Your task to perform on an android device: Open Amazon Image 0: 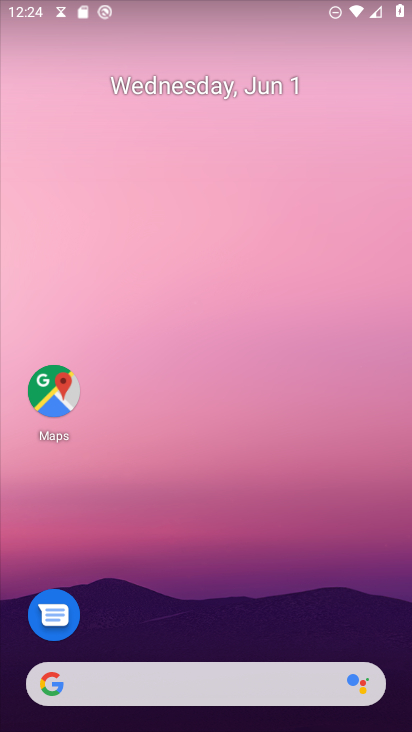
Step 0: drag from (277, 620) to (313, 138)
Your task to perform on an android device: Open Amazon Image 1: 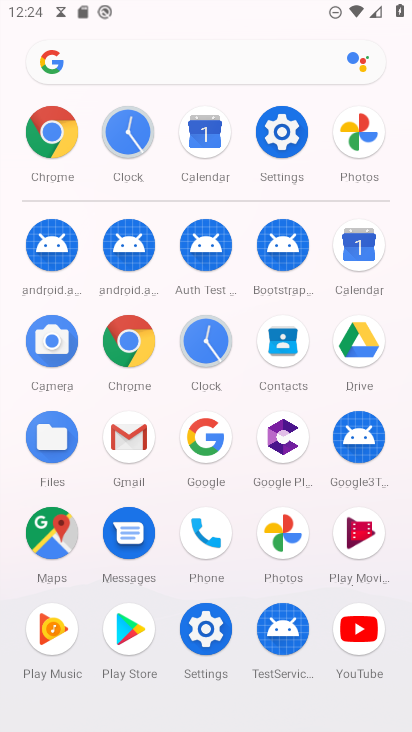
Step 1: click (135, 337)
Your task to perform on an android device: Open Amazon Image 2: 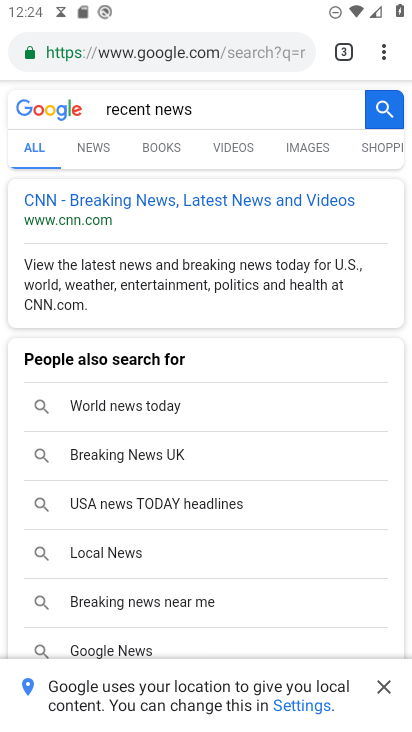
Step 2: click (304, 115)
Your task to perform on an android device: Open Amazon Image 3: 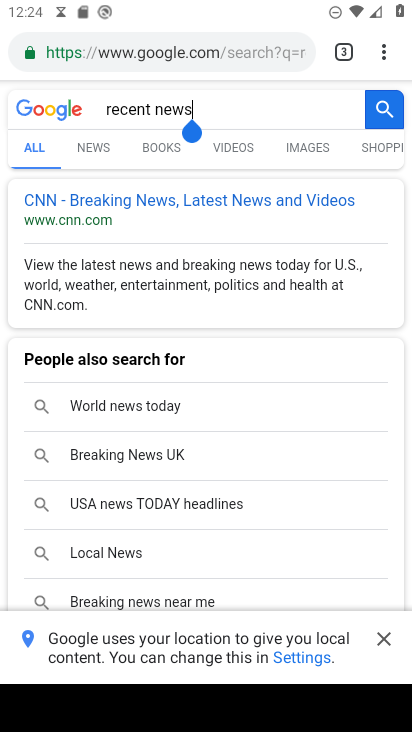
Step 3: click (320, 116)
Your task to perform on an android device: Open Amazon Image 4: 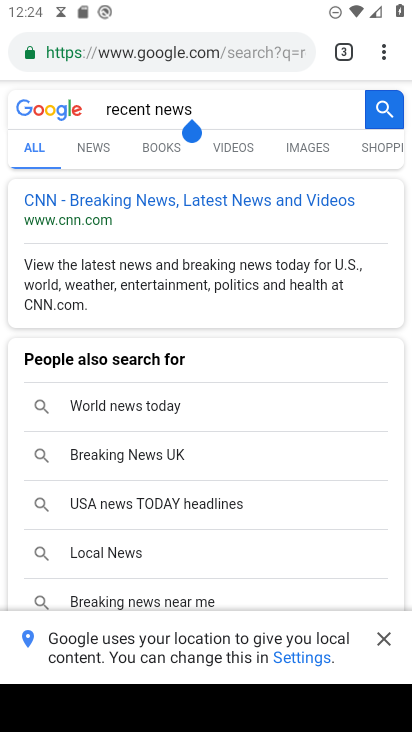
Step 4: click (320, 116)
Your task to perform on an android device: Open Amazon Image 5: 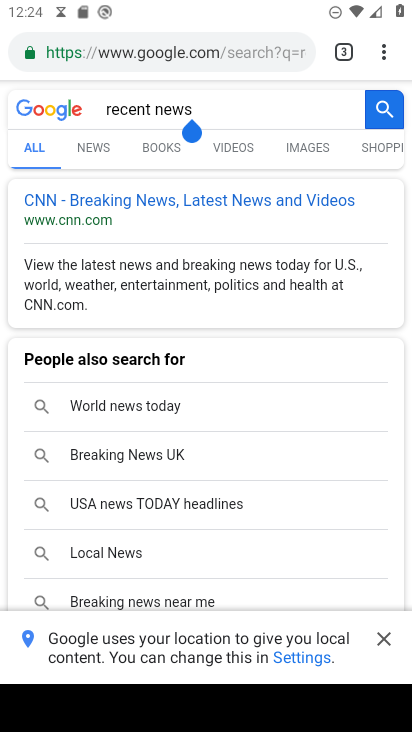
Step 5: click (351, 49)
Your task to perform on an android device: Open Amazon Image 6: 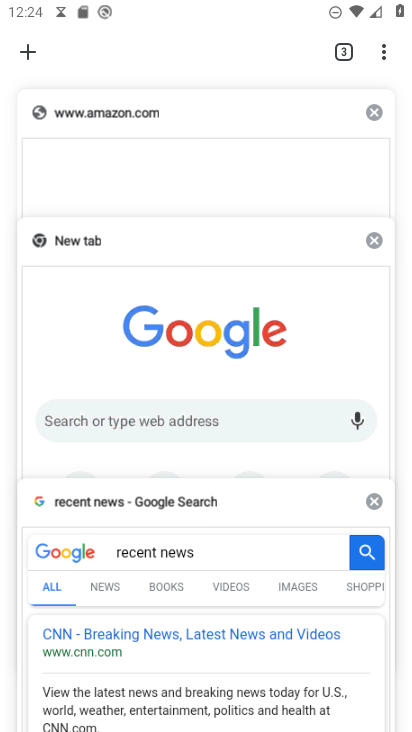
Step 6: click (212, 529)
Your task to perform on an android device: Open Amazon Image 7: 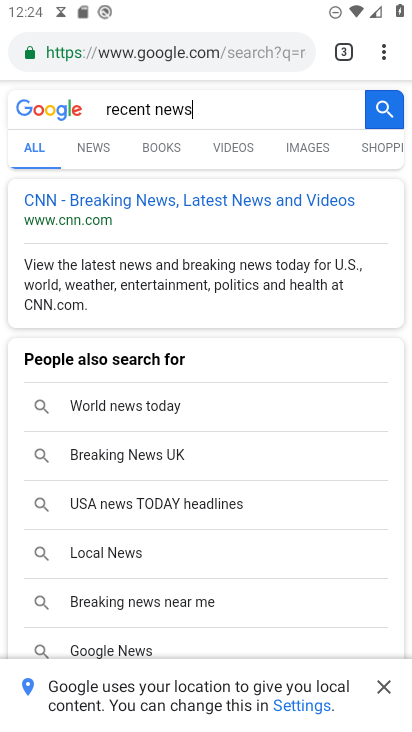
Step 7: click (294, 60)
Your task to perform on an android device: Open Amazon Image 8: 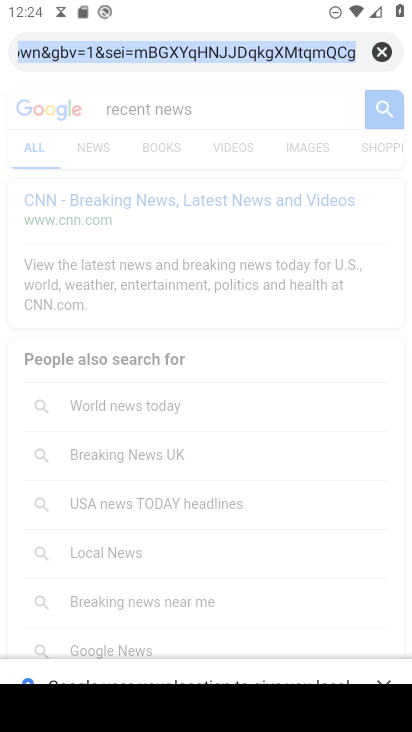
Step 8: click (377, 58)
Your task to perform on an android device: Open Amazon Image 9: 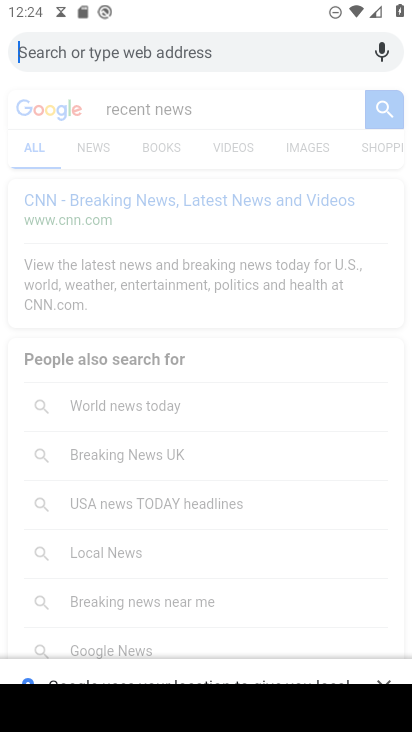
Step 9: type "amazon"
Your task to perform on an android device: Open Amazon Image 10: 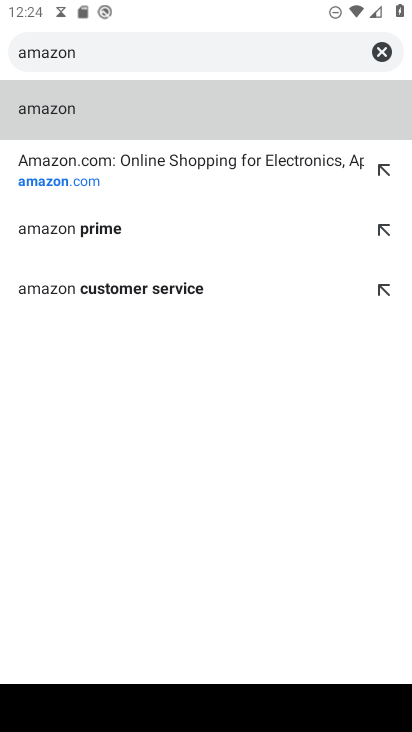
Step 10: click (132, 159)
Your task to perform on an android device: Open Amazon Image 11: 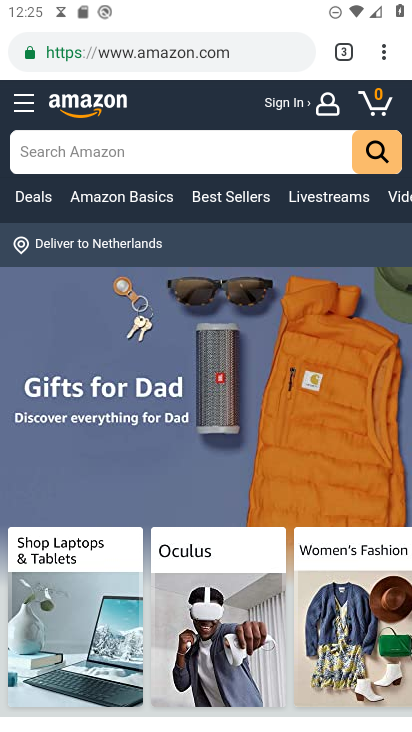
Step 11: task complete